Your task to perform on an android device: add a contact Image 0: 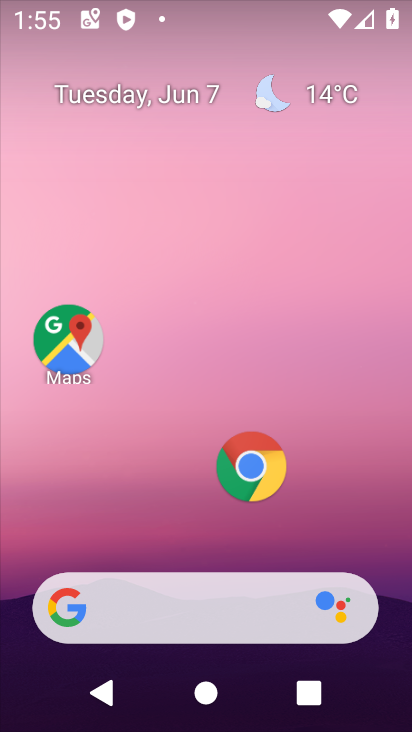
Step 0: drag from (164, 730) to (155, 185)
Your task to perform on an android device: add a contact Image 1: 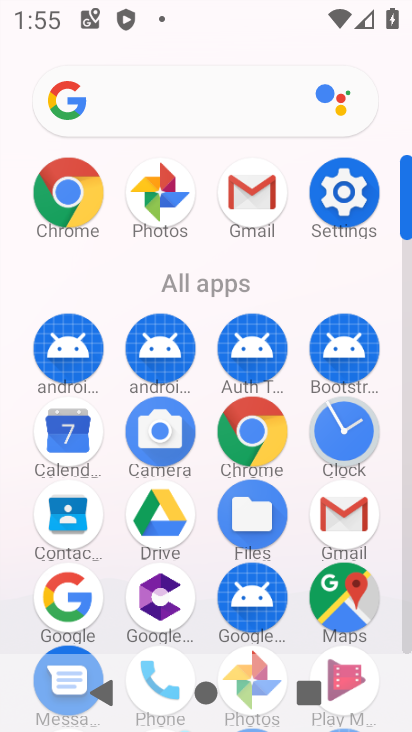
Step 1: click (68, 522)
Your task to perform on an android device: add a contact Image 2: 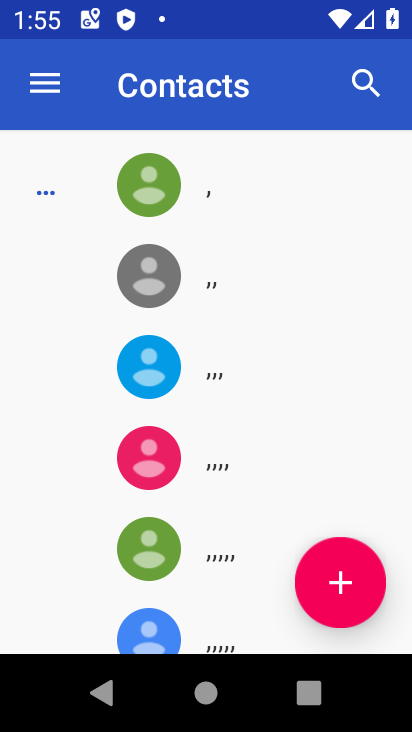
Step 2: click (348, 586)
Your task to perform on an android device: add a contact Image 3: 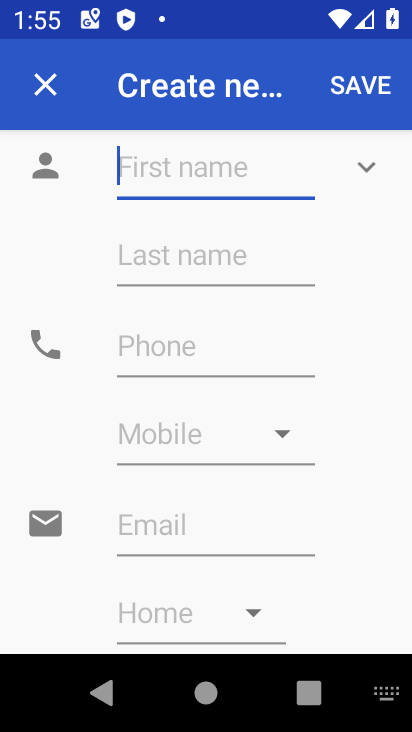
Step 3: type "jhgsadcjhgsg"
Your task to perform on an android device: add a contact Image 4: 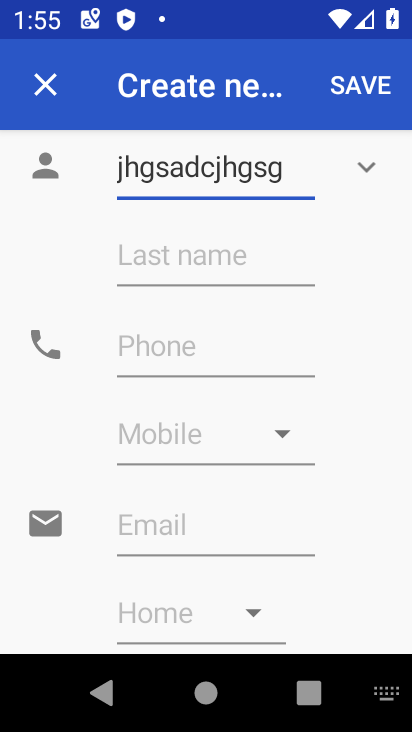
Step 4: click (138, 349)
Your task to perform on an android device: add a contact Image 5: 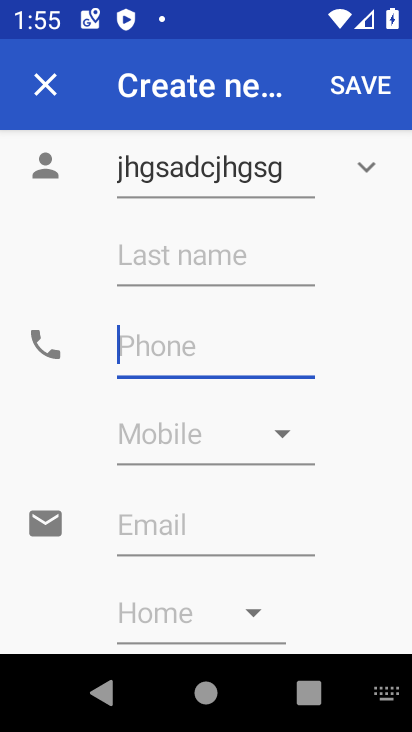
Step 5: type "98762534126"
Your task to perform on an android device: add a contact Image 6: 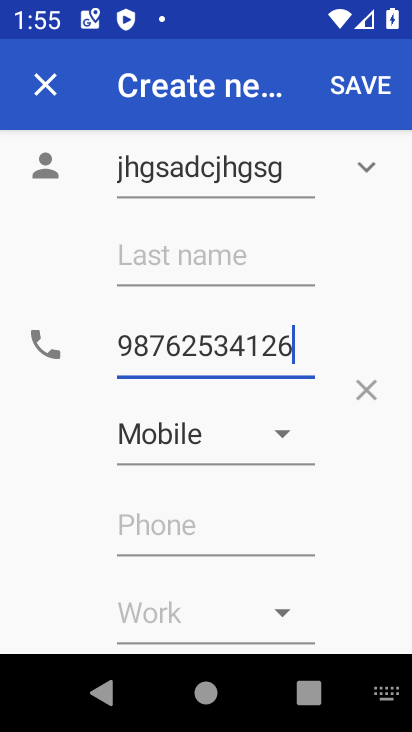
Step 6: click (363, 88)
Your task to perform on an android device: add a contact Image 7: 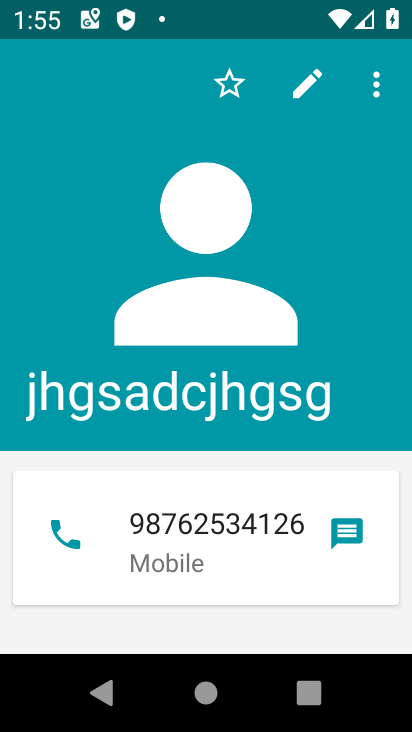
Step 7: task complete